Your task to perform on an android device: Go to eBay Image 0: 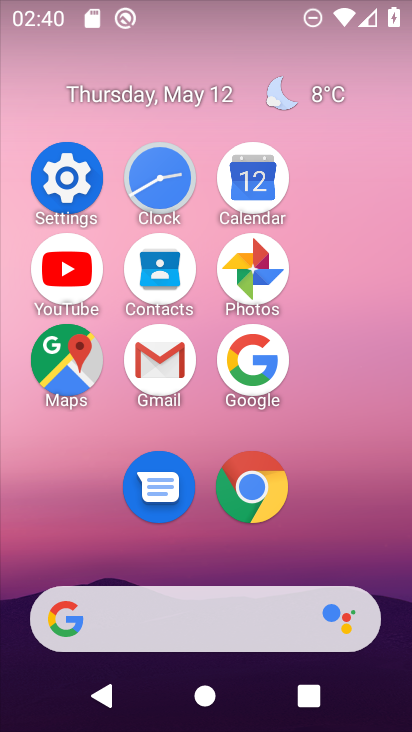
Step 0: click (256, 487)
Your task to perform on an android device: Go to eBay Image 1: 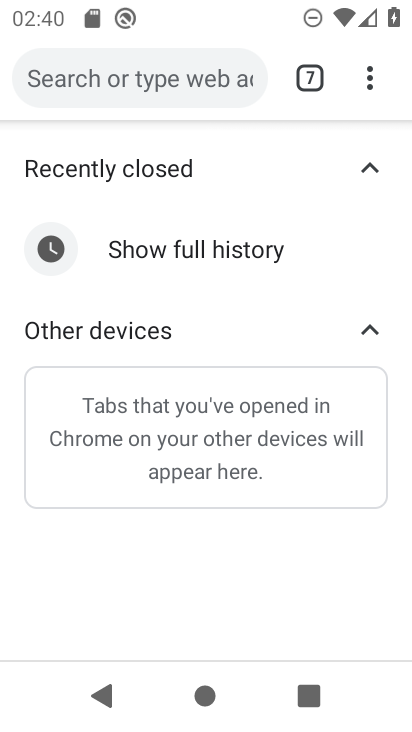
Step 1: click (308, 63)
Your task to perform on an android device: Go to eBay Image 2: 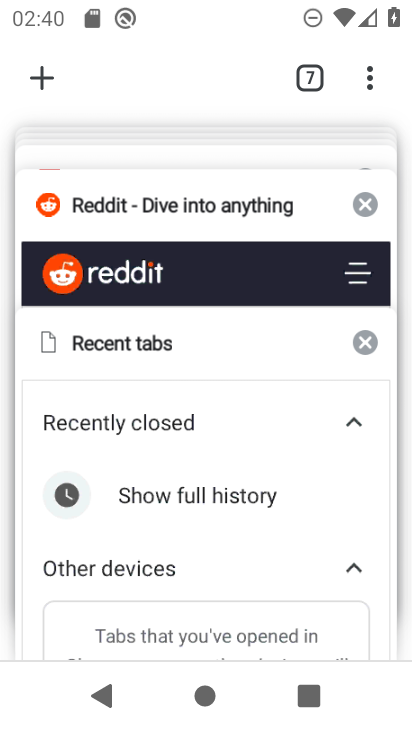
Step 2: drag from (181, 196) to (173, 470)
Your task to perform on an android device: Go to eBay Image 3: 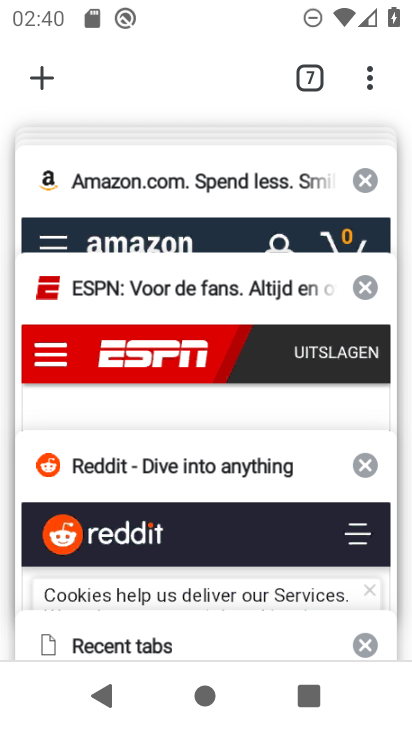
Step 3: drag from (210, 206) to (201, 506)
Your task to perform on an android device: Go to eBay Image 4: 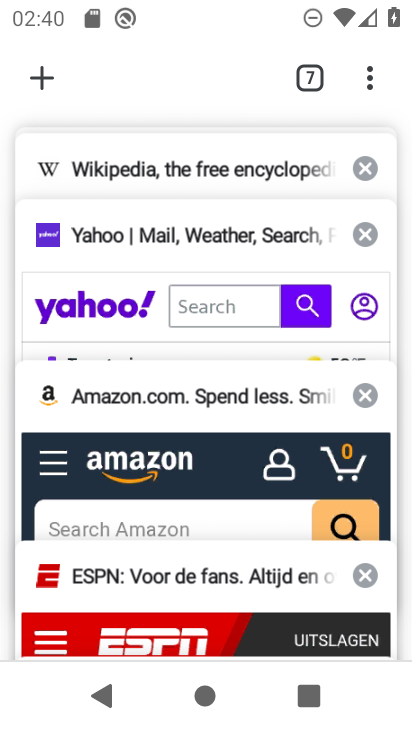
Step 4: drag from (189, 175) to (209, 495)
Your task to perform on an android device: Go to eBay Image 5: 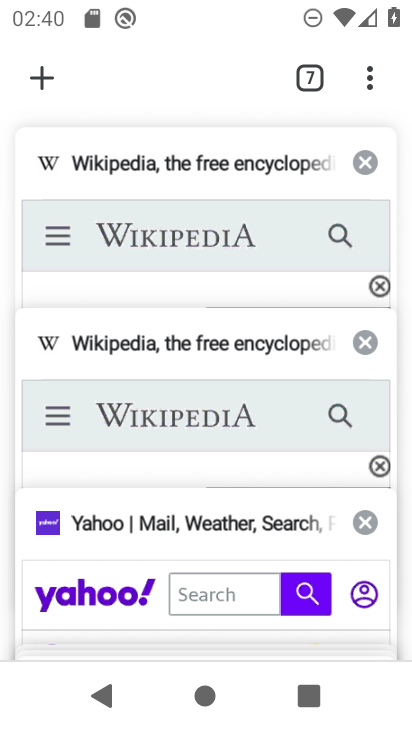
Step 5: drag from (199, 154) to (205, 364)
Your task to perform on an android device: Go to eBay Image 6: 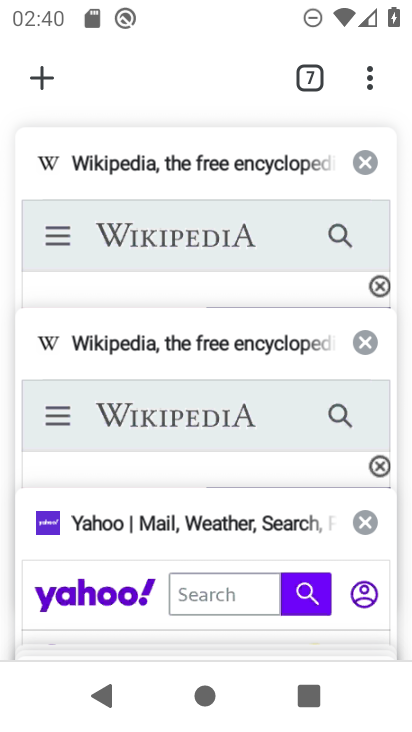
Step 6: click (50, 82)
Your task to perform on an android device: Go to eBay Image 7: 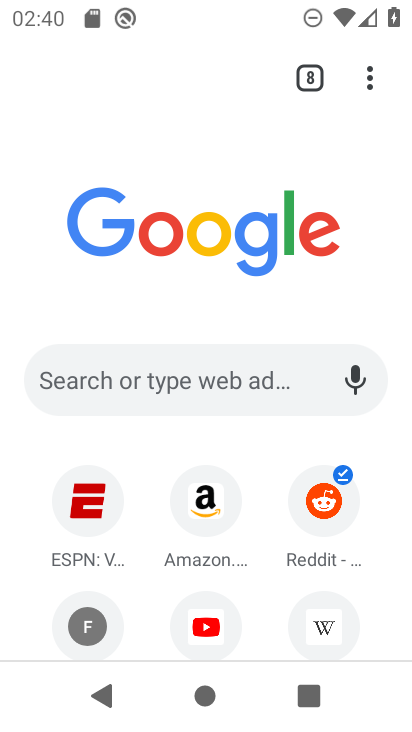
Step 7: click (150, 362)
Your task to perform on an android device: Go to eBay Image 8: 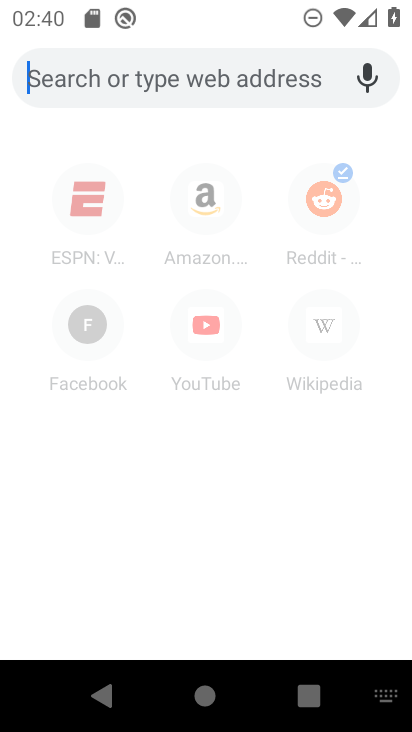
Step 8: type "ebay"
Your task to perform on an android device: Go to eBay Image 9: 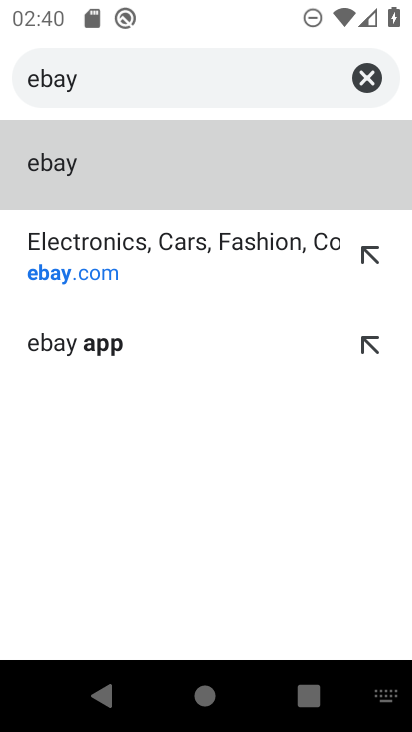
Step 9: click (128, 268)
Your task to perform on an android device: Go to eBay Image 10: 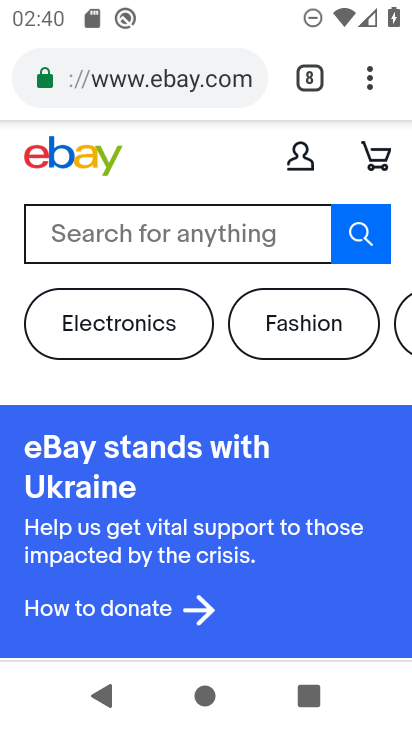
Step 10: task complete